Your task to perform on an android device: Open ESPN.com Image 0: 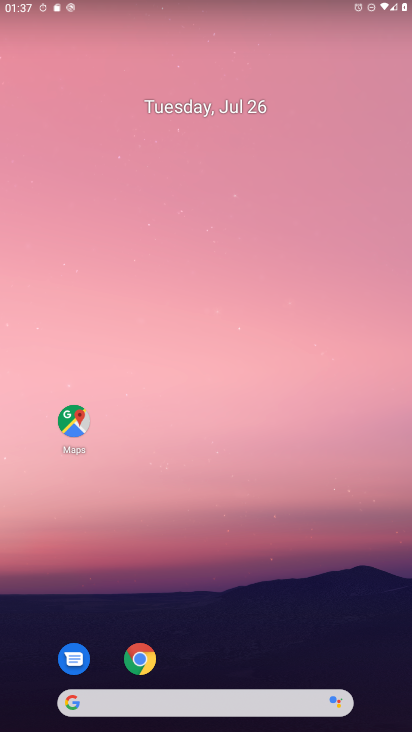
Step 0: press home button
Your task to perform on an android device: Open ESPN.com Image 1: 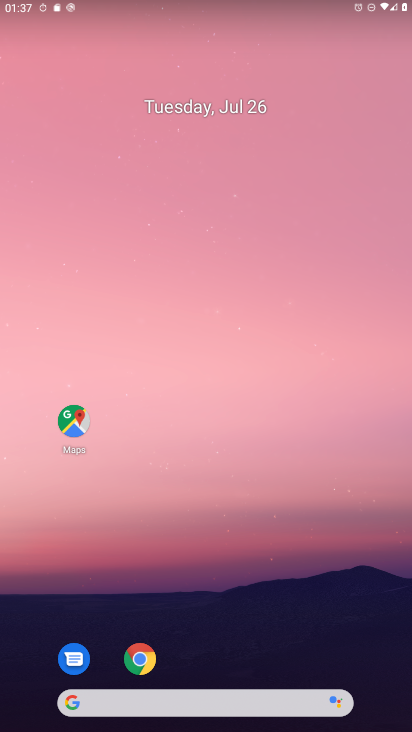
Step 1: drag from (330, 650) to (394, 117)
Your task to perform on an android device: Open ESPN.com Image 2: 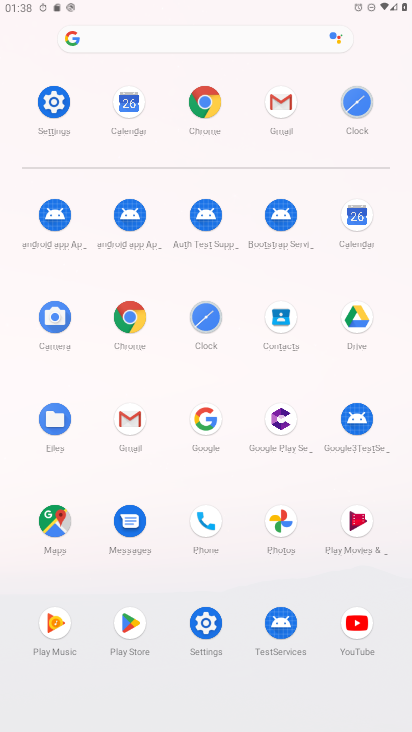
Step 2: click (138, 326)
Your task to perform on an android device: Open ESPN.com Image 3: 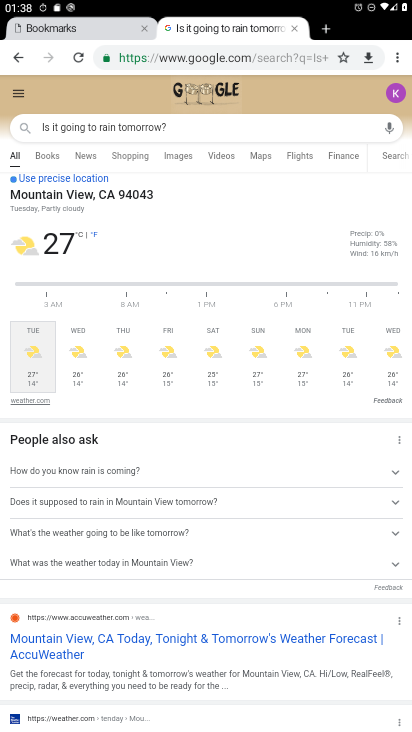
Step 3: click (219, 56)
Your task to perform on an android device: Open ESPN.com Image 4: 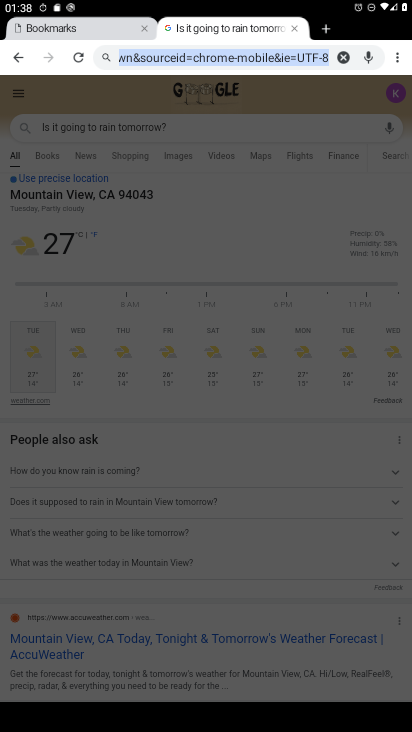
Step 4: type " ESPN.com"
Your task to perform on an android device: Open ESPN.com Image 5: 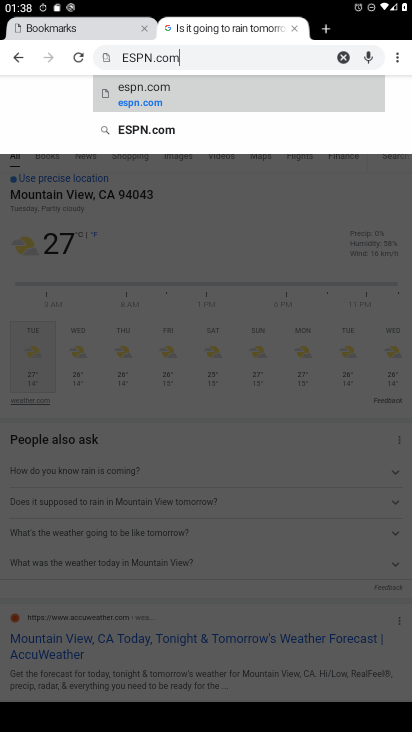
Step 5: type ""
Your task to perform on an android device: Open ESPN.com Image 6: 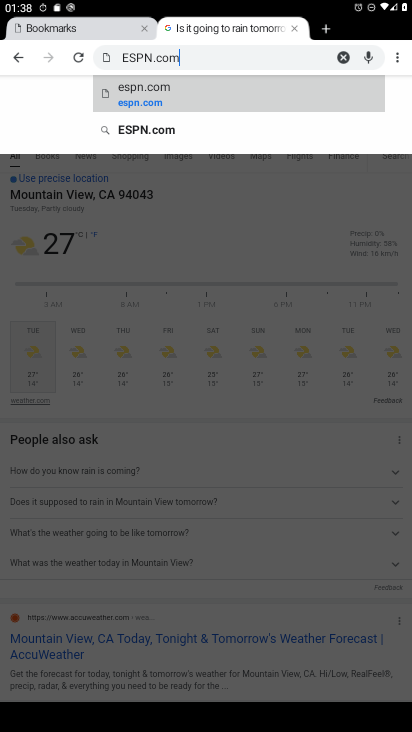
Step 6: click (191, 85)
Your task to perform on an android device: Open ESPN.com Image 7: 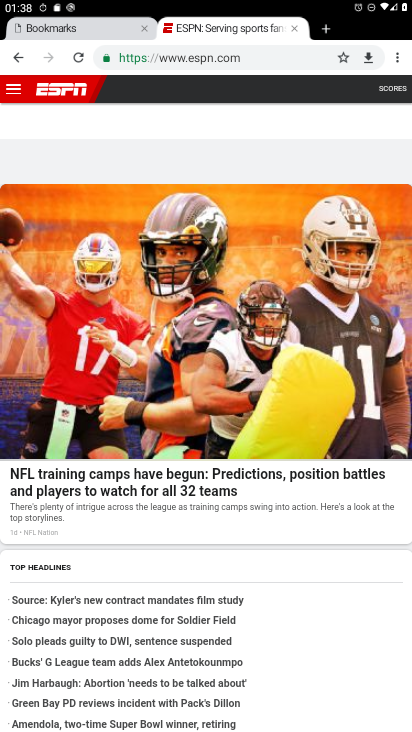
Step 7: task complete